Your task to perform on an android device: Do I have any events tomorrow? Image 0: 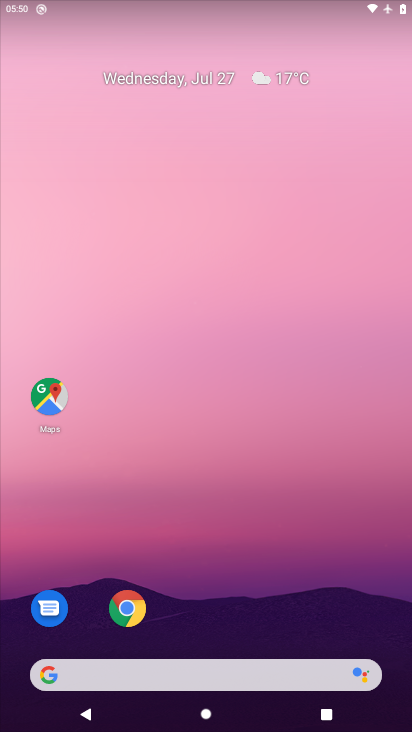
Step 0: press home button
Your task to perform on an android device: Do I have any events tomorrow? Image 1: 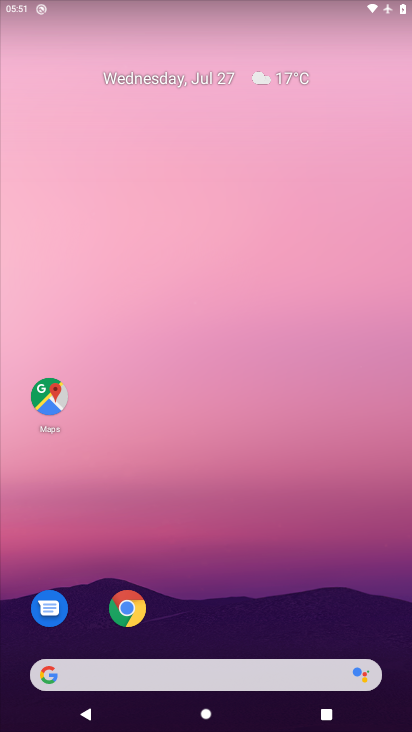
Step 1: drag from (242, 618) to (310, 128)
Your task to perform on an android device: Do I have any events tomorrow? Image 2: 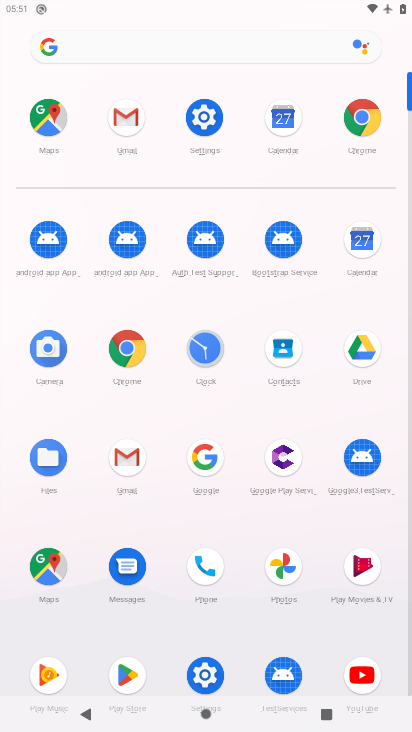
Step 2: click (363, 235)
Your task to perform on an android device: Do I have any events tomorrow? Image 3: 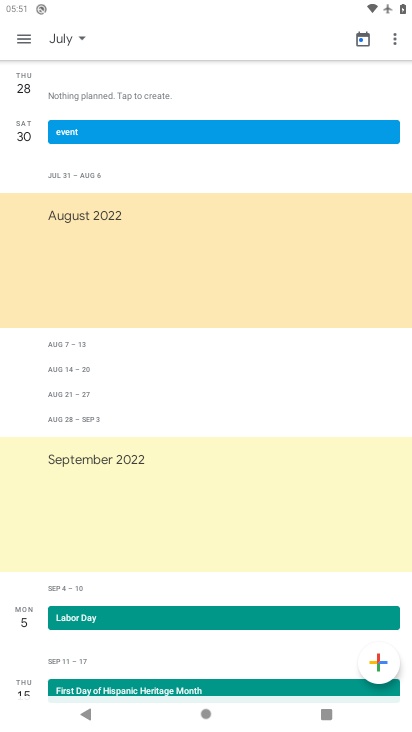
Step 3: click (70, 39)
Your task to perform on an android device: Do I have any events tomorrow? Image 4: 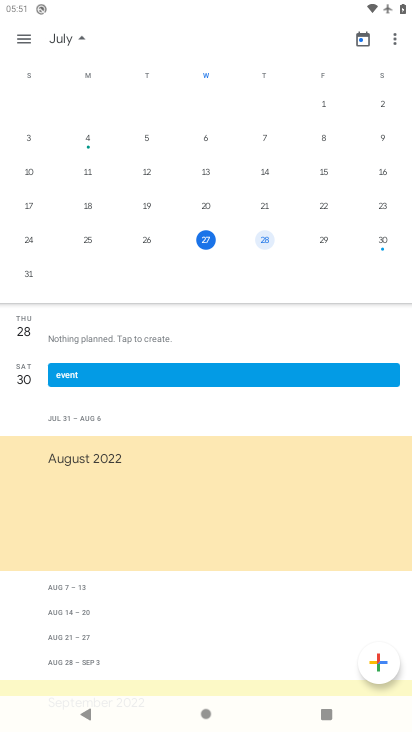
Step 4: click (266, 240)
Your task to perform on an android device: Do I have any events tomorrow? Image 5: 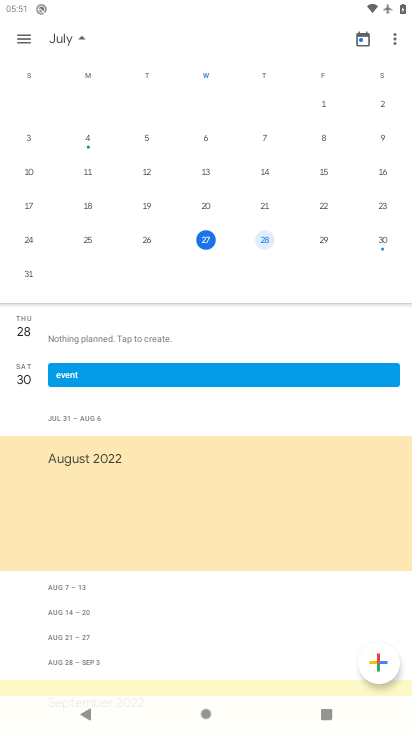
Step 5: task complete